Your task to perform on an android device: check the backup settings in the google photos Image 0: 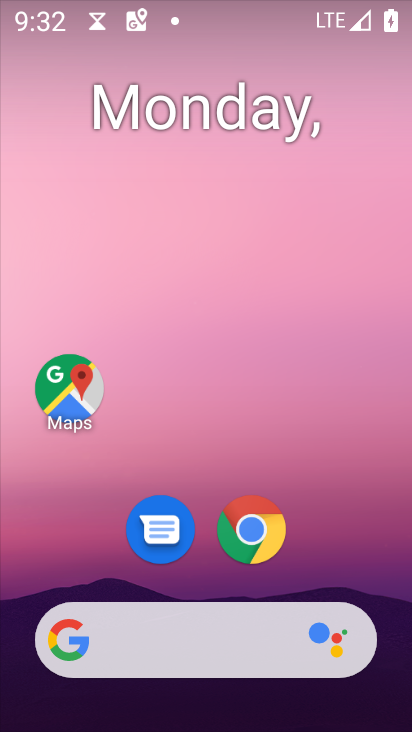
Step 0: drag from (217, 703) to (217, 330)
Your task to perform on an android device: check the backup settings in the google photos Image 1: 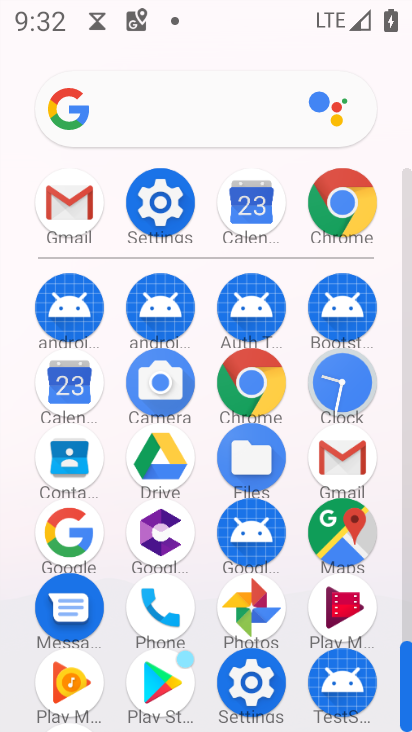
Step 1: click (260, 615)
Your task to perform on an android device: check the backup settings in the google photos Image 2: 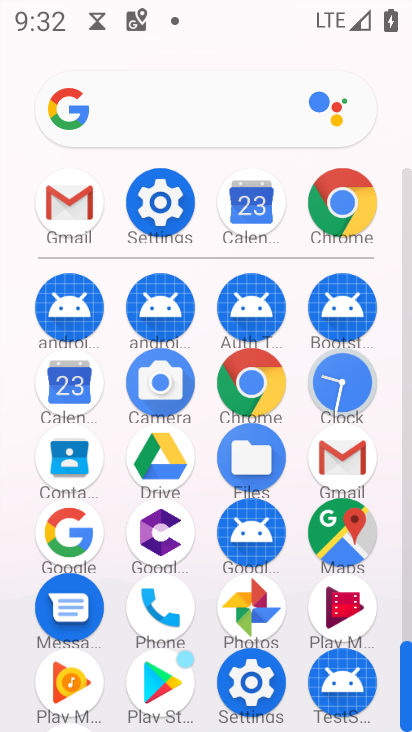
Step 2: click (260, 615)
Your task to perform on an android device: check the backup settings in the google photos Image 3: 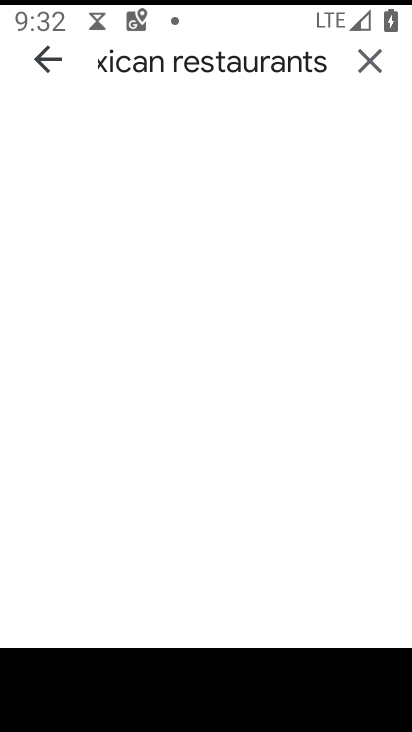
Step 3: click (363, 64)
Your task to perform on an android device: check the backup settings in the google photos Image 4: 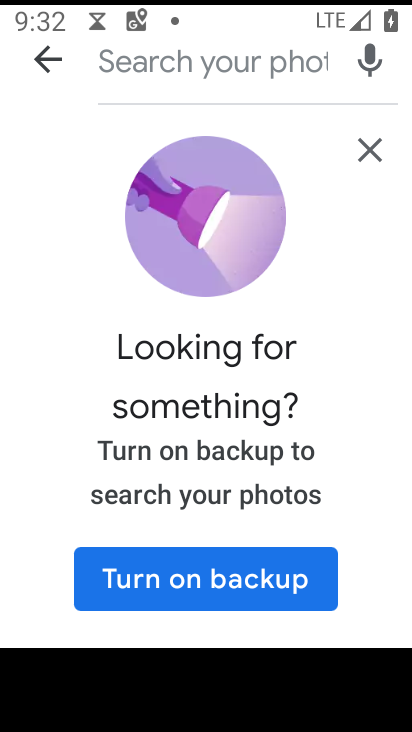
Step 4: click (217, 580)
Your task to perform on an android device: check the backup settings in the google photos Image 5: 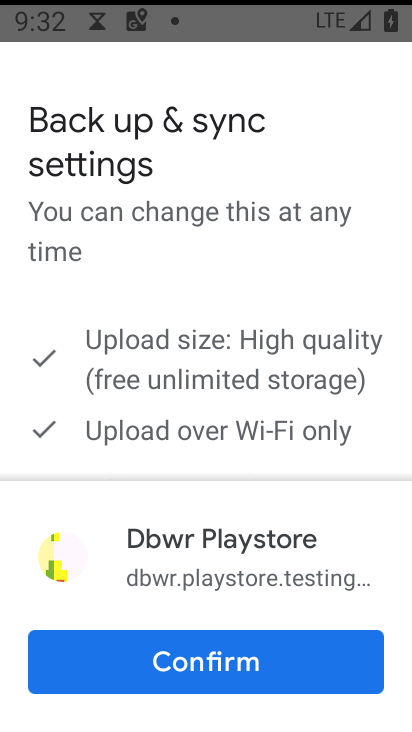
Step 5: click (217, 650)
Your task to perform on an android device: check the backup settings in the google photos Image 6: 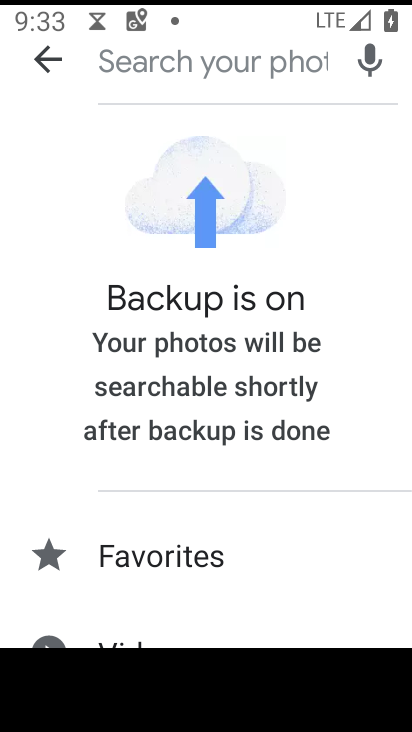
Step 6: drag from (180, 508) to (192, 292)
Your task to perform on an android device: check the backup settings in the google photos Image 7: 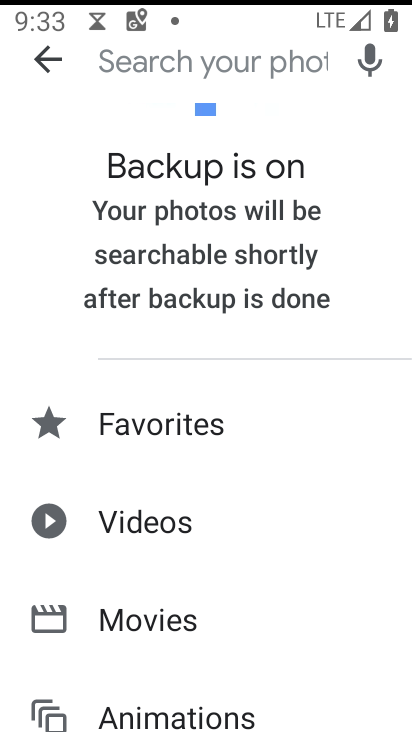
Step 7: click (209, 106)
Your task to perform on an android device: check the backup settings in the google photos Image 8: 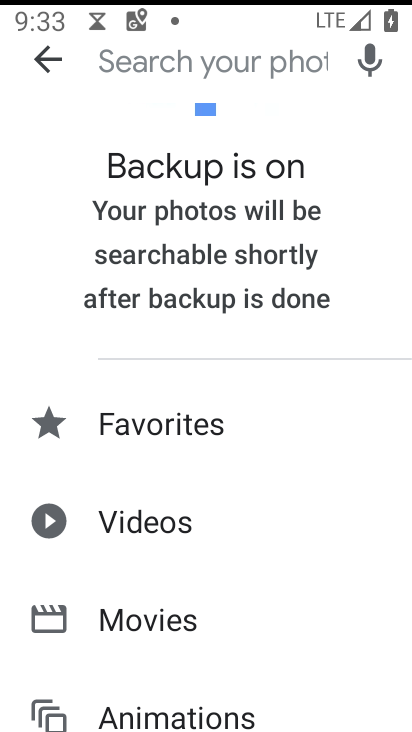
Step 8: task complete